Your task to perform on an android device: empty trash in google photos Image 0: 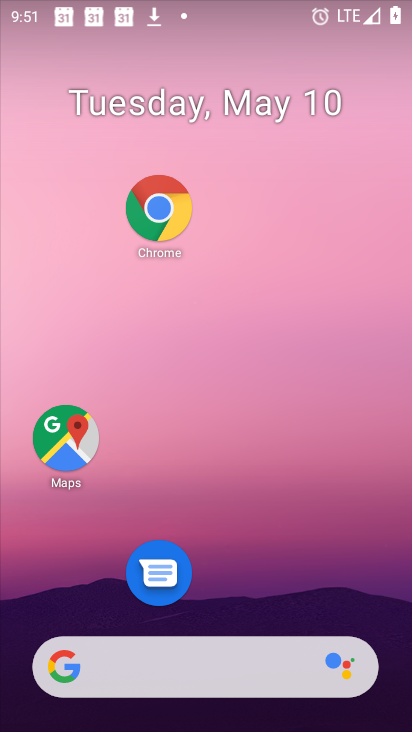
Step 0: drag from (276, 697) to (377, 144)
Your task to perform on an android device: empty trash in google photos Image 1: 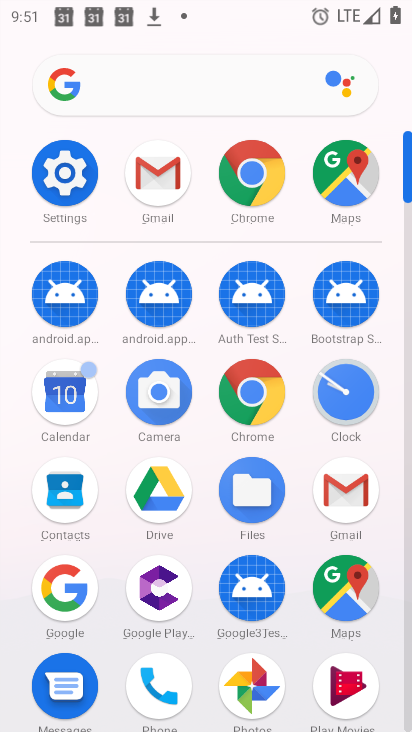
Step 1: click (245, 670)
Your task to perform on an android device: empty trash in google photos Image 2: 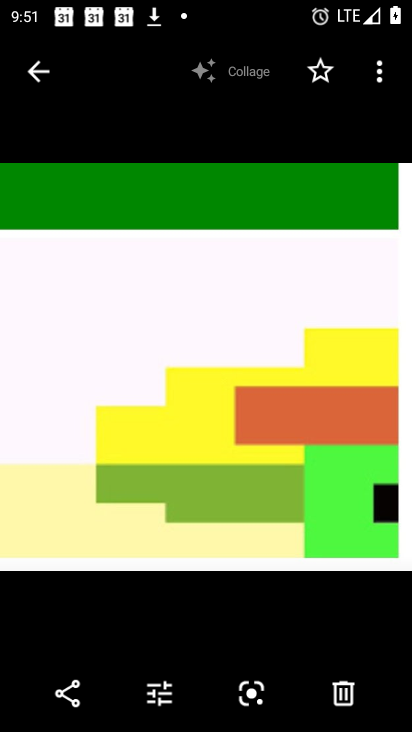
Step 2: click (35, 65)
Your task to perform on an android device: empty trash in google photos Image 3: 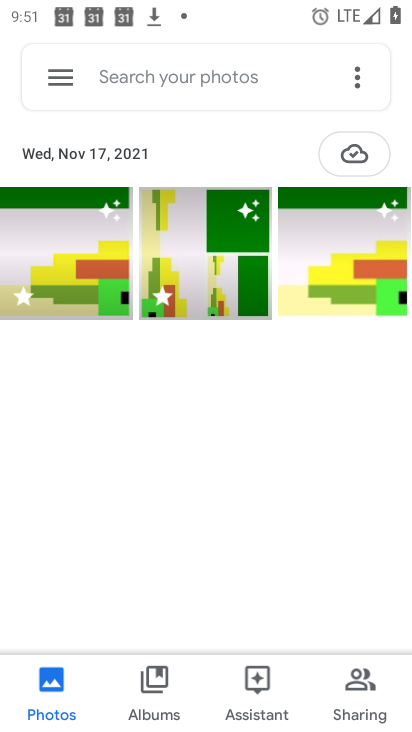
Step 3: click (61, 68)
Your task to perform on an android device: empty trash in google photos Image 4: 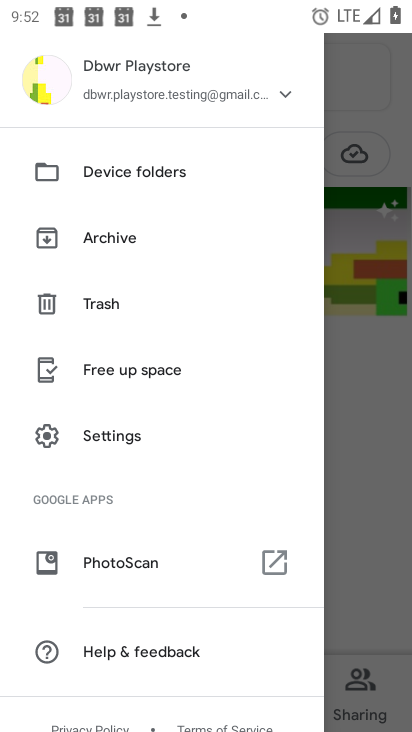
Step 4: click (104, 294)
Your task to perform on an android device: empty trash in google photos Image 5: 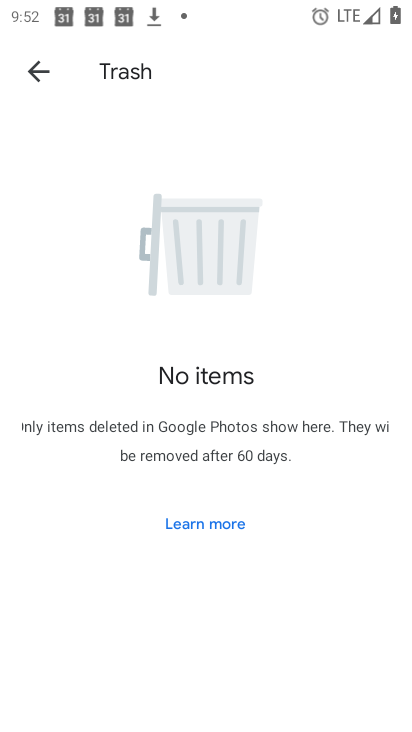
Step 5: task complete